Your task to perform on an android device: Do I have any events this weekend? Image 0: 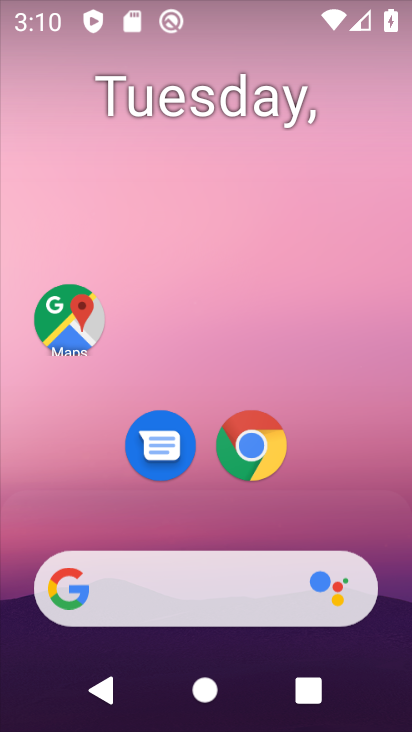
Step 0: drag from (220, 486) to (368, 4)
Your task to perform on an android device: Do I have any events this weekend? Image 1: 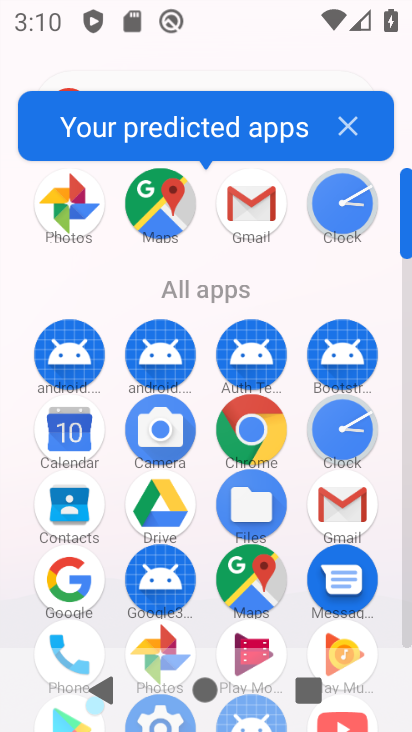
Step 1: click (65, 423)
Your task to perform on an android device: Do I have any events this weekend? Image 2: 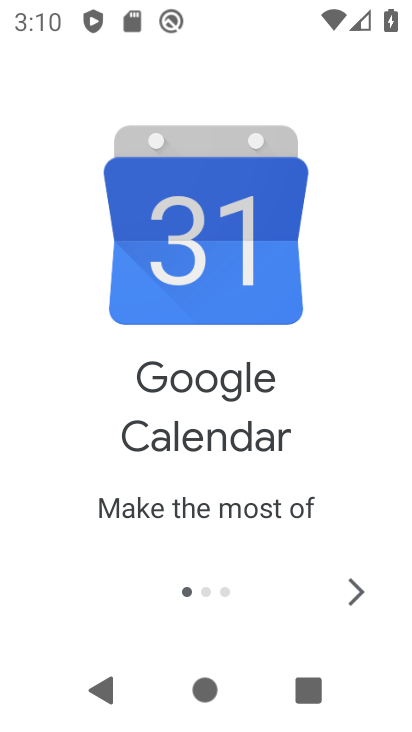
Step 2: click (372, 576)
Your task to perform on an android device: Do I have any events this weekend? Image 3: 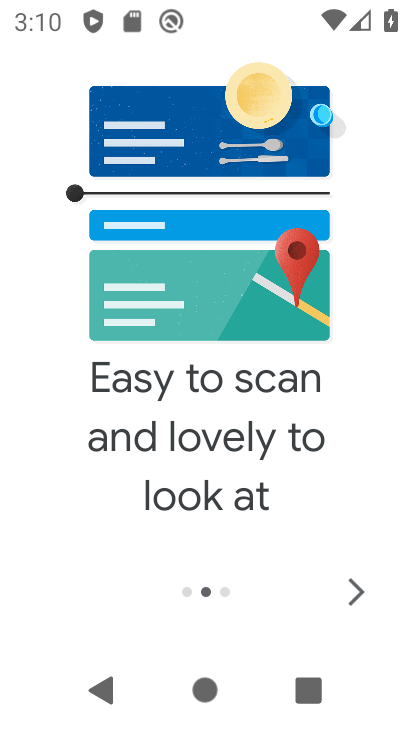
Step 3: click (367, 578)
Your task to perform on an android device: Do I have any events this weekend? Image 4: 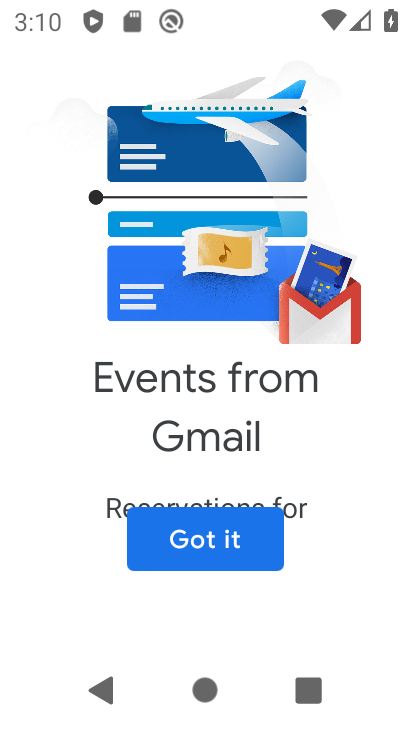
Step 4: click (179, 525)
Your task to perform on an android device: Do I have any events this weekend? Image 5: 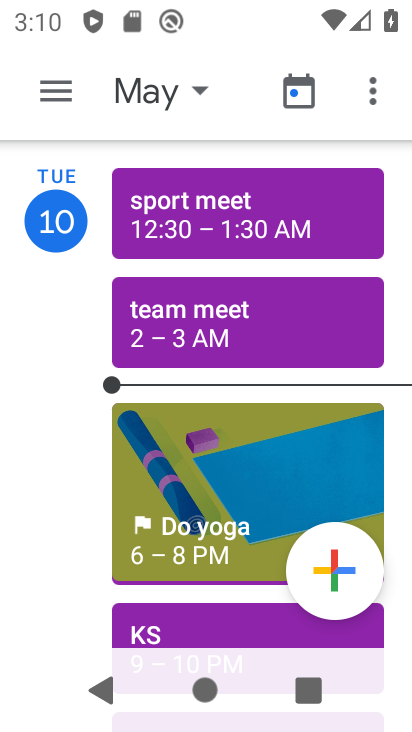
Step 5: drag from (192, 504) to (312, 42)
Your task to perform on an android device: Do I have any events this weekend? Image 6: 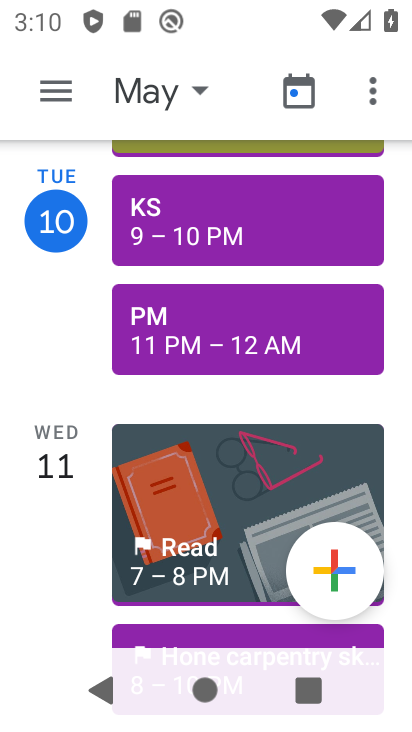
Step 6: drag from (220, 523) to (321, 63)
Your task to perform on an android device: Do I have any events this weekend? Image 7: 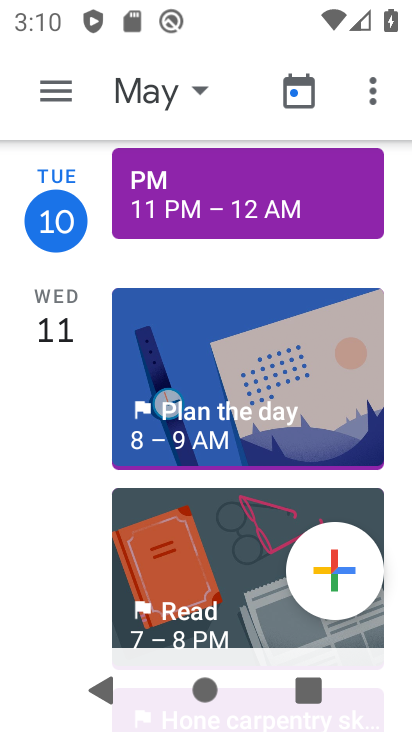
Step 7: drag from (160, 603) to (297, 143)
Your task to perform on an android device: Do I have any events this weekend? Image 8: 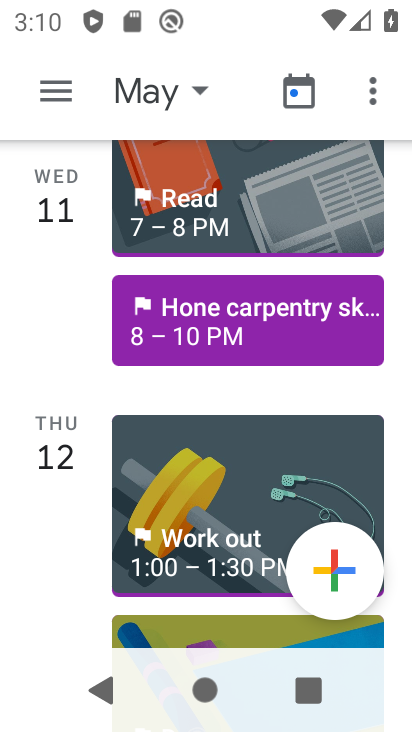
Step 8: drag from (191, 586) to (344, 137)
Your task to perform on an android device: Do I have any events this weekend? Image 9: 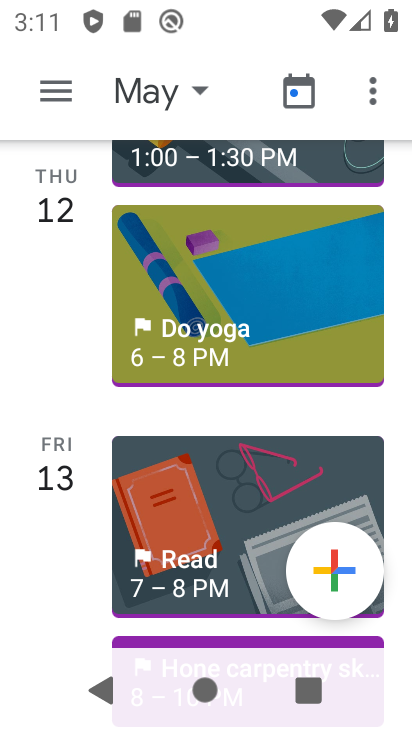
Step 9: drag from (227, 574) to (238, 528)
Your task to perform on an android device: Do I have any events this weekend? Image 10: 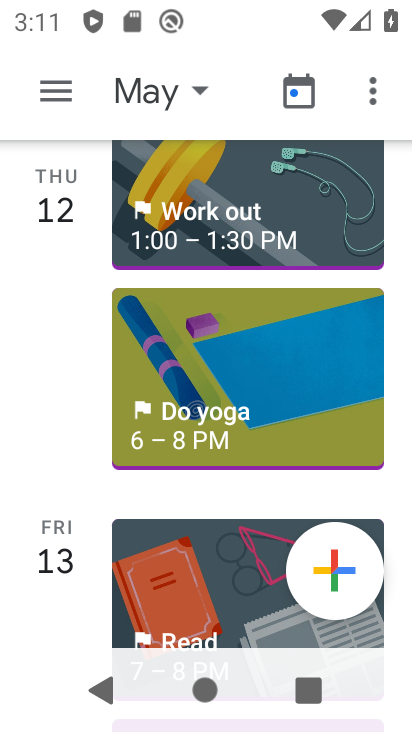
Step 10: click (202, 393)
Your task to perform on an android device: Do I have any events this weekend? Image 11: 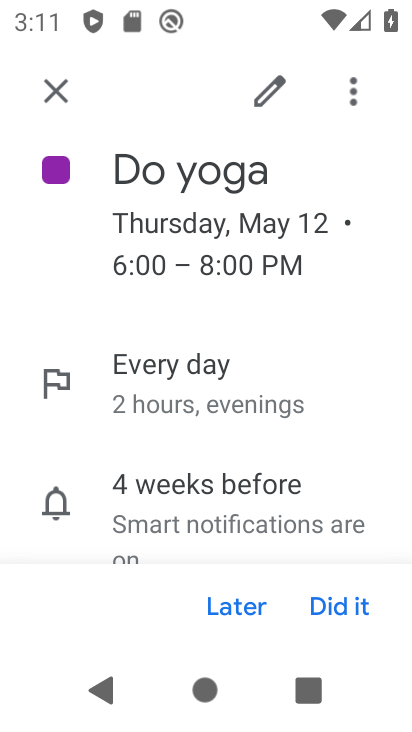
Step 11: task complete